Your task to perform on an android device: read, delete, or share a saved page in the chrome app Image 0: 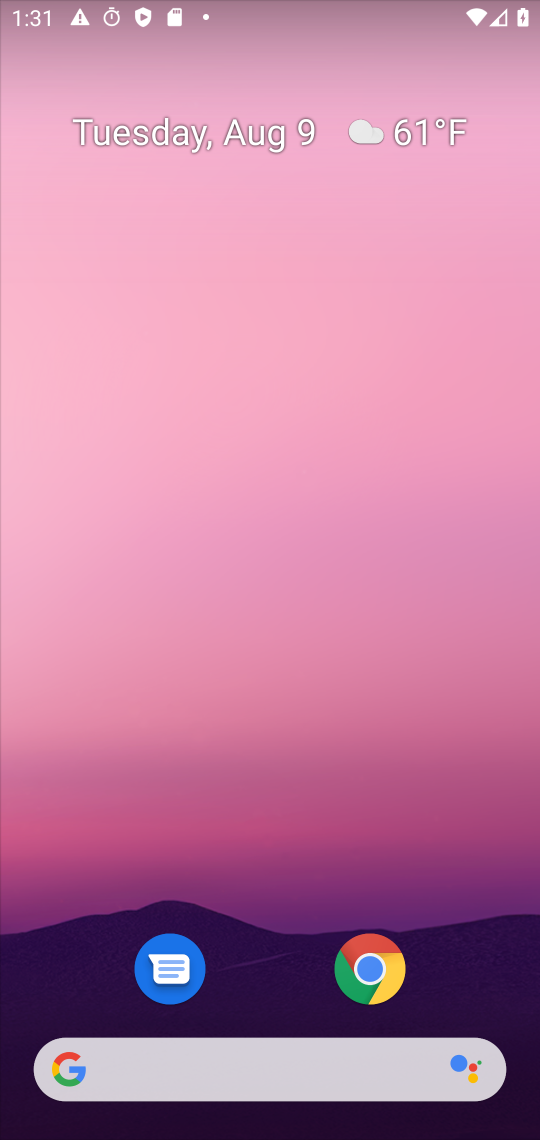
Step 0: drag from (354, 1081) to (212, 198)
Your task to perform on an android device: read, delete, or share a saved page in the chrome app Image 1: 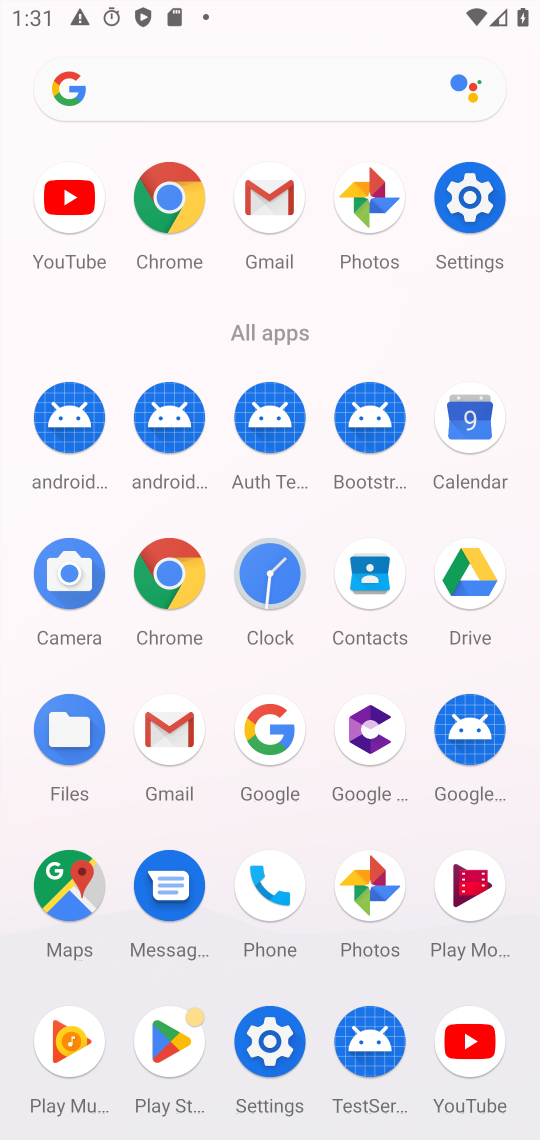
Step 1: click (184, 197)
Your task to perform on an android device: read, delete, or share a saved page in the chrome app Image 2: 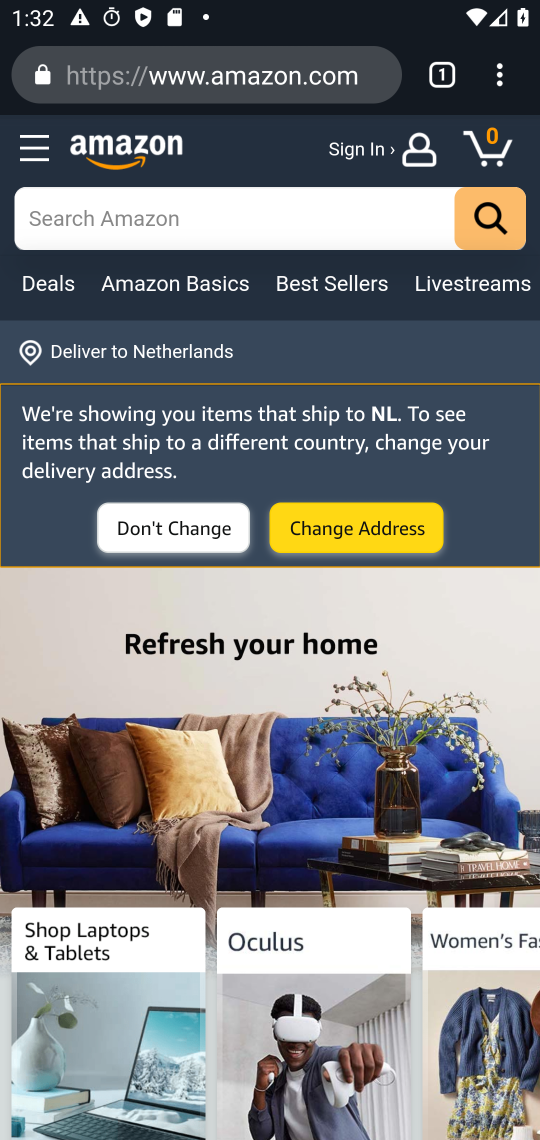
Step 2: click (496, 85)
Your task to perform on an android device: read, delete, or share a saved page in the chrome app Image 3: 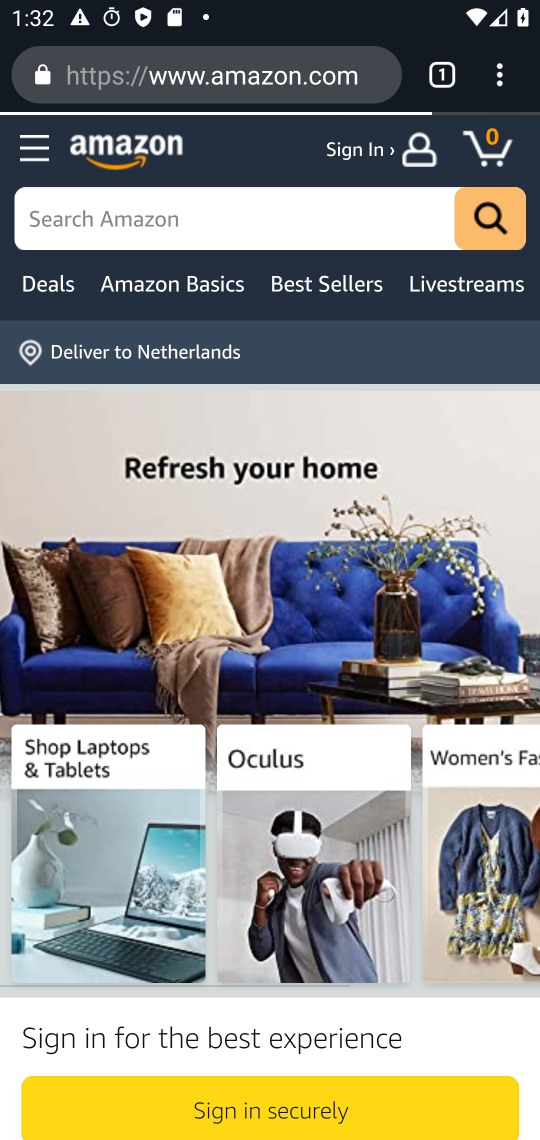
Step 3: click (491, 96)
Your task to perform on an android device: read, delete, or share a saved page in the chrome app Image 4: 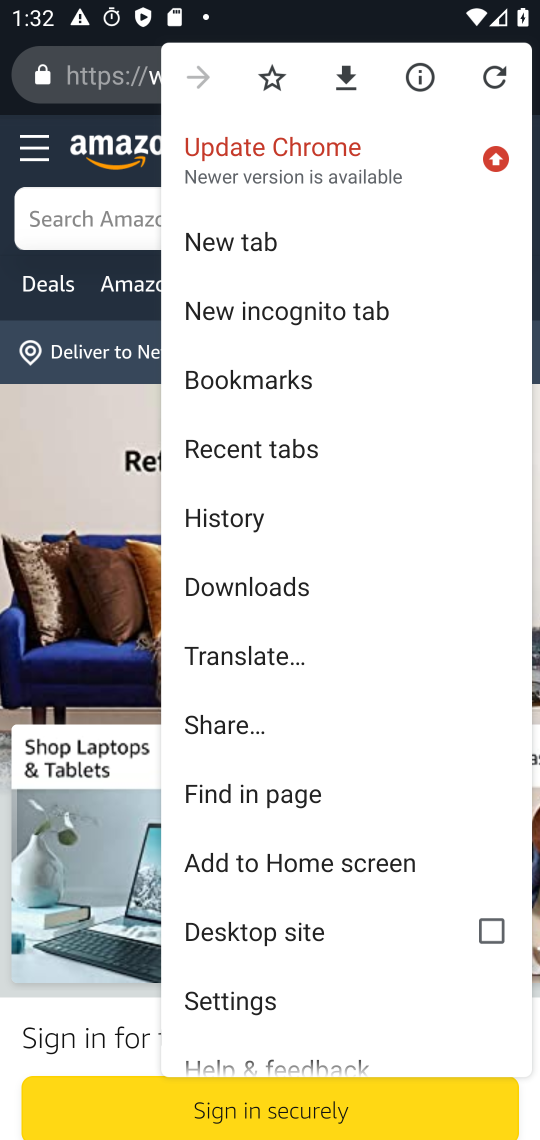
Step 4: click (219, 720)
Your task to perform on an android device: read, delete, or share a saved page in the chrome app Image 5: 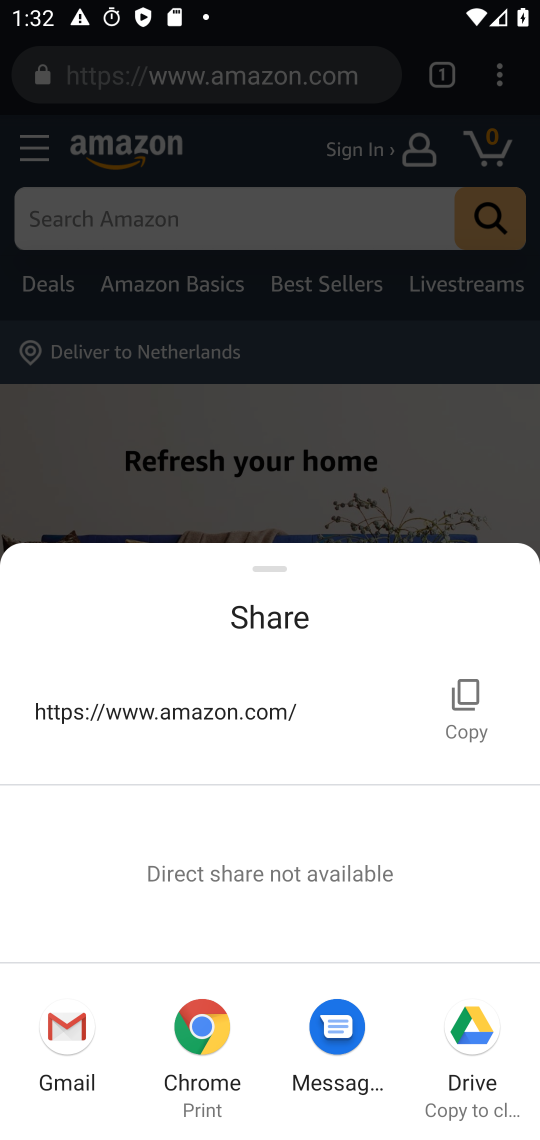
Step 5: task complete